Your task to perform on an android device: Clear all items from cart on ebay. Search for razer deathadder on ebay, select the first entry, and add it to the cart. Image 0: 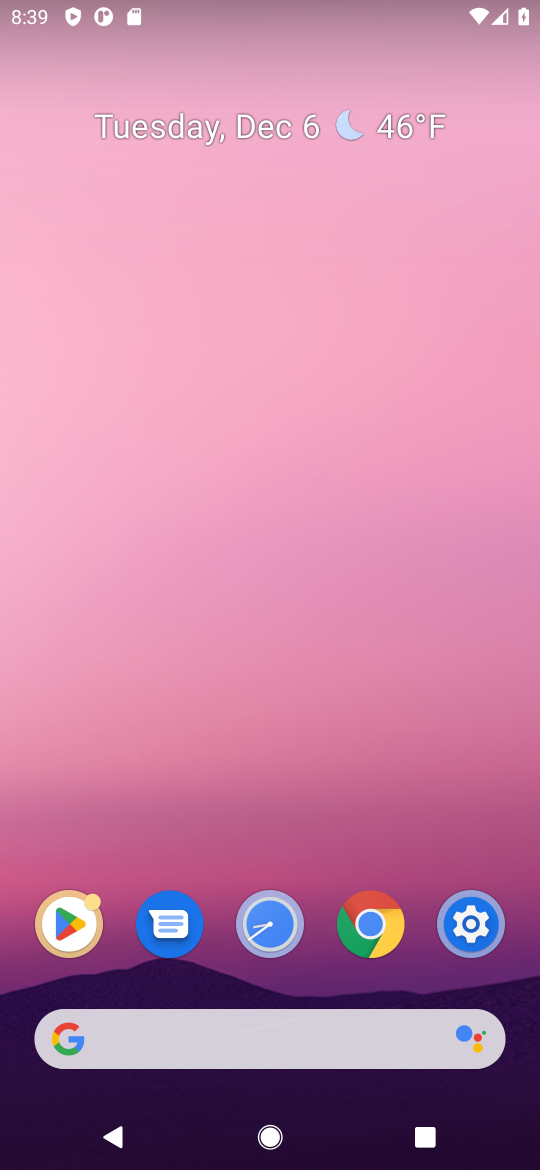
Step 0: click (207, 1040)
Your task to perform on an android device: Clear all items from cart on ebay. Search for razer deathadder on ebay, select the first entry, and add it to the cart. Image 1: 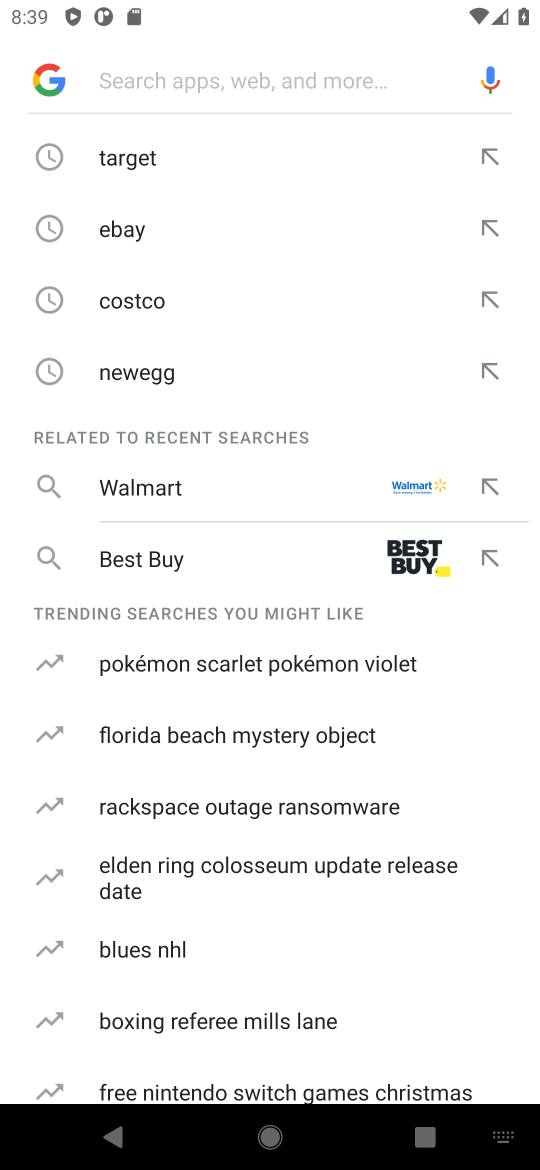
Step 1: click (219, 241)
Your task to perform on an android device: Clear all items from cart on ebay. Search for razer deathadder on ebay, select the first entry, and add it to the cart. Image 2: 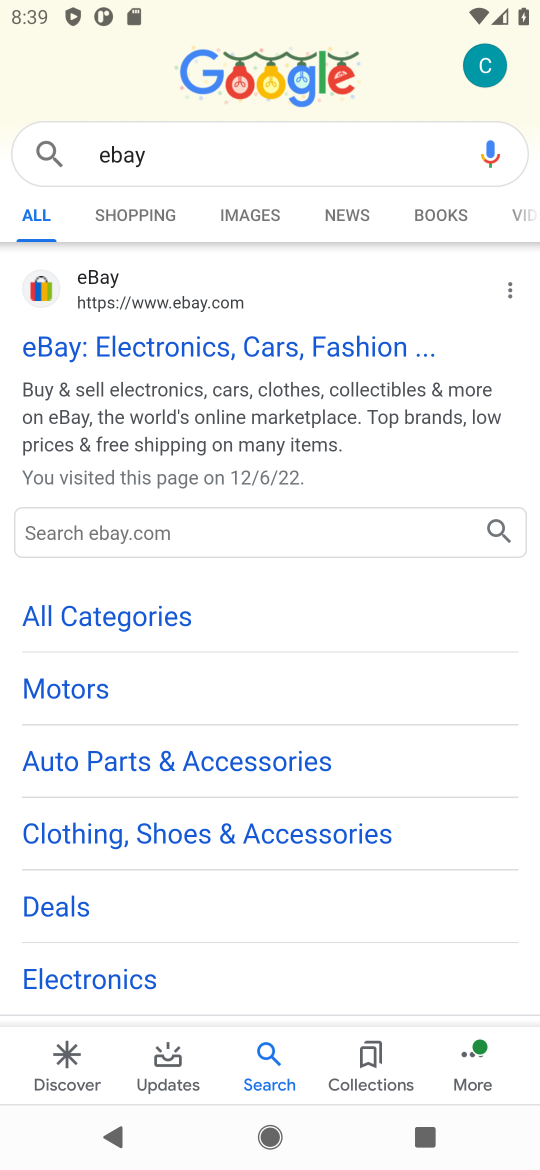
Step 2: click (96, 361)
Your task to perform on an android device: Clear all items from cart on ebay. Search for razer deathadder on ebay, select the first entry, and add it to the cart. Image 3: 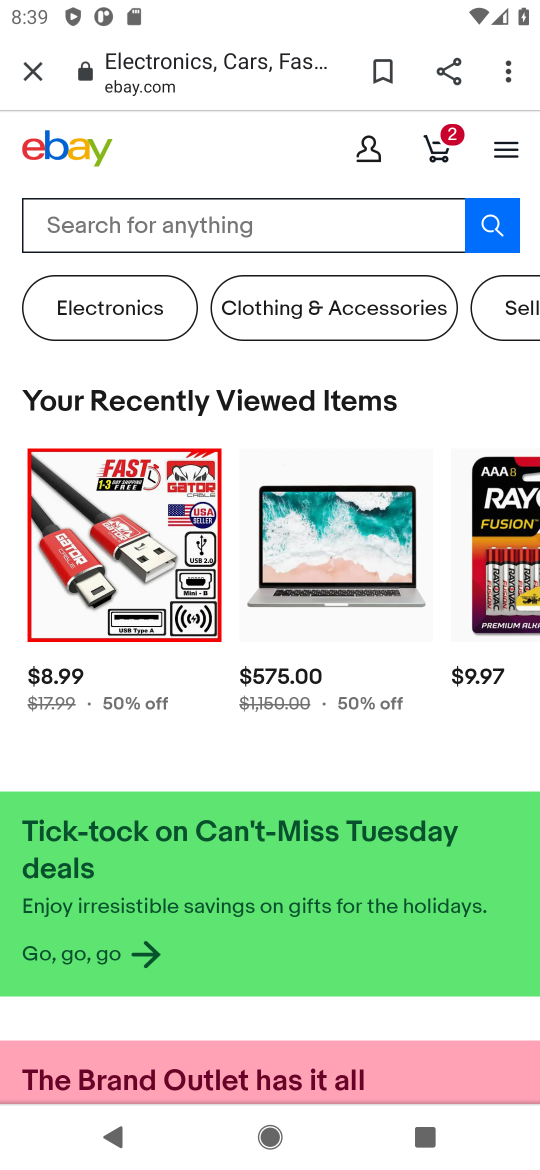
Step 3: click (142, 237)
Your task to perform on an android device: Clear all items from cart on ebay. Search for razer deathadder on ebay, select the first entry, and add it to the cart. Image 4: 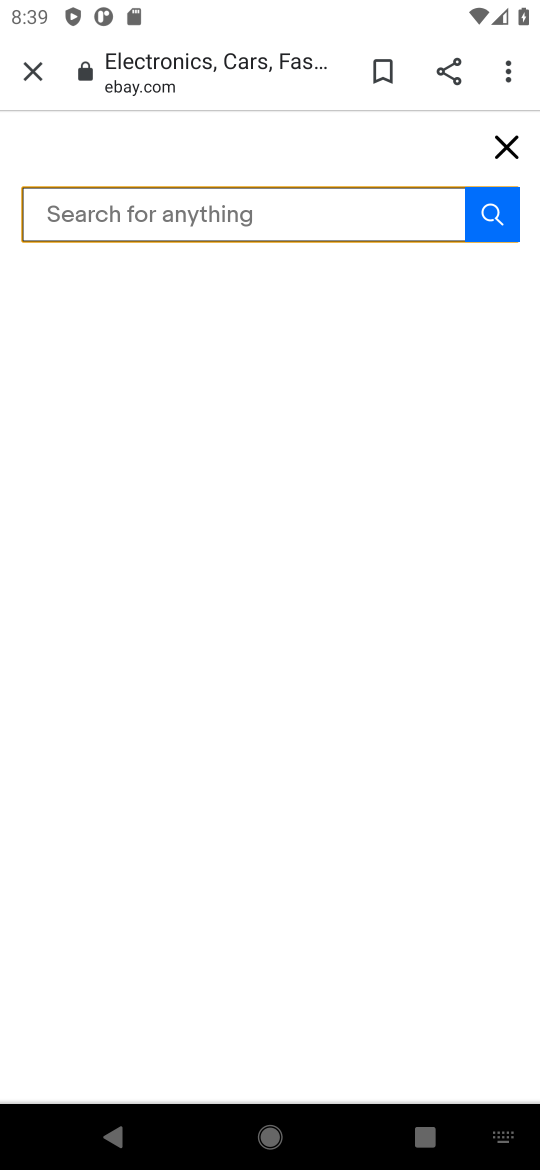
Step 4: type "razer deathadder"
Your task to perform on an android device: Clear all items from cart on ebay. Search for razer deathadder on ebay, select the first entry, and add it to the cart. Image 5: 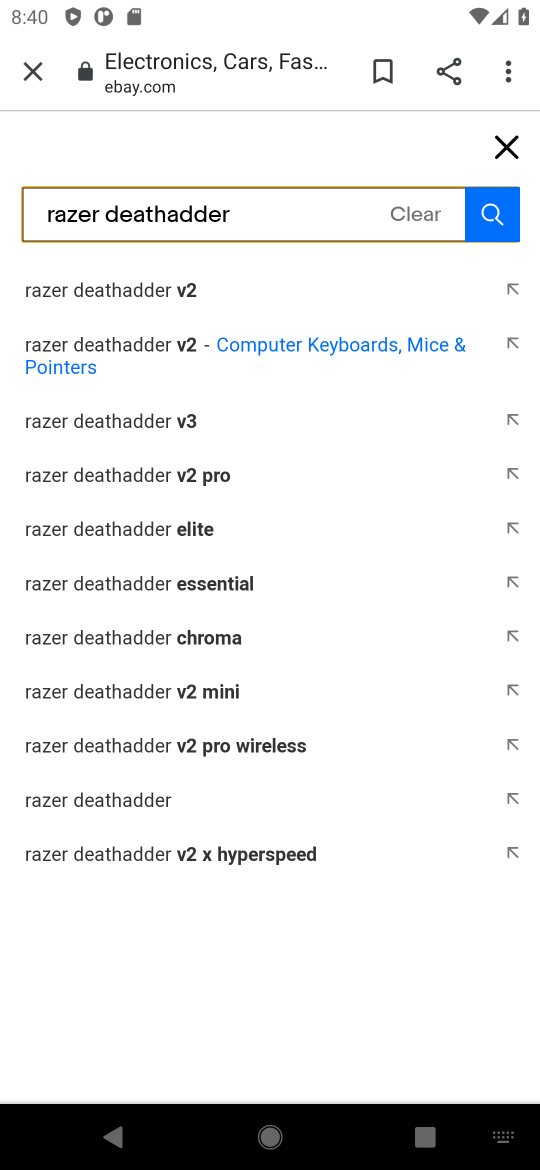
Step 5: click (110, 310)
Your task to perform on an android device: Clear all items from cart on ebay. Search for razer deathadder on ebay, select the first entry, and add it to the cart. Image 6: 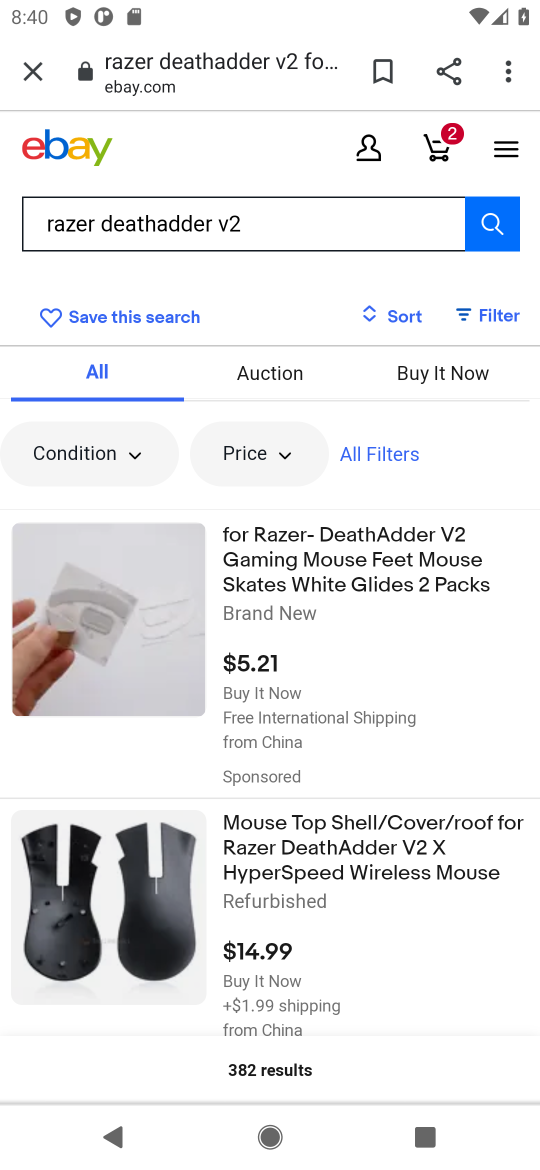
Step 6: click (325, 538)
Your task to perform on an android device: Clear all items from cart on ebay. Search for razer deathadder on ebay, select the first entry, and add it to the cart. Image 7: 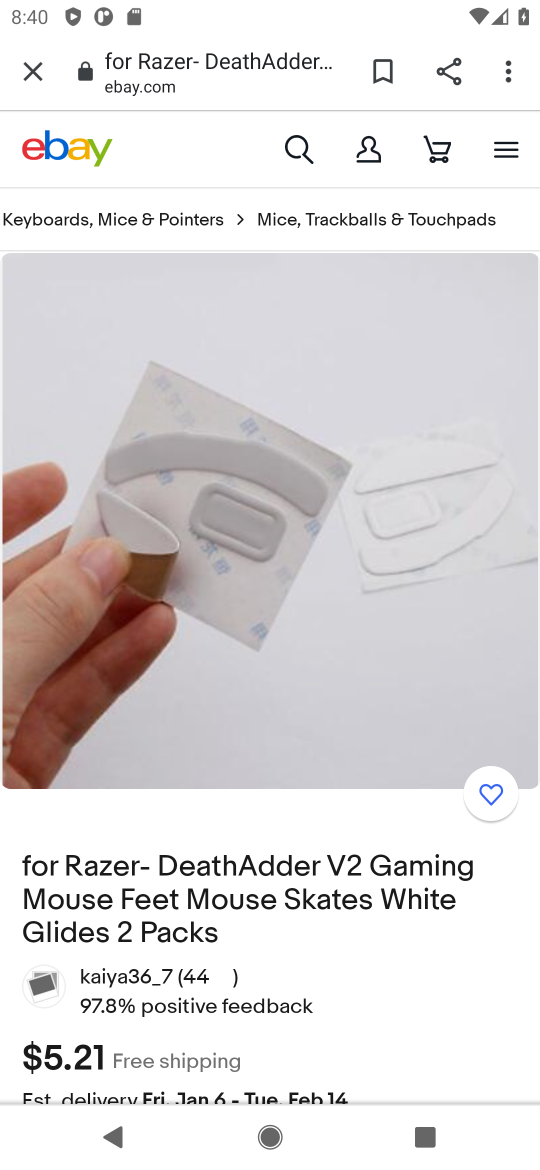
Step 7: drag from (282, 689) to (309, 271)
Your task to perform on an android device: Clear all items from cart on ebay. Search for razer deathadder on ebay, select the first entry, and add it to the cart. Image 8: 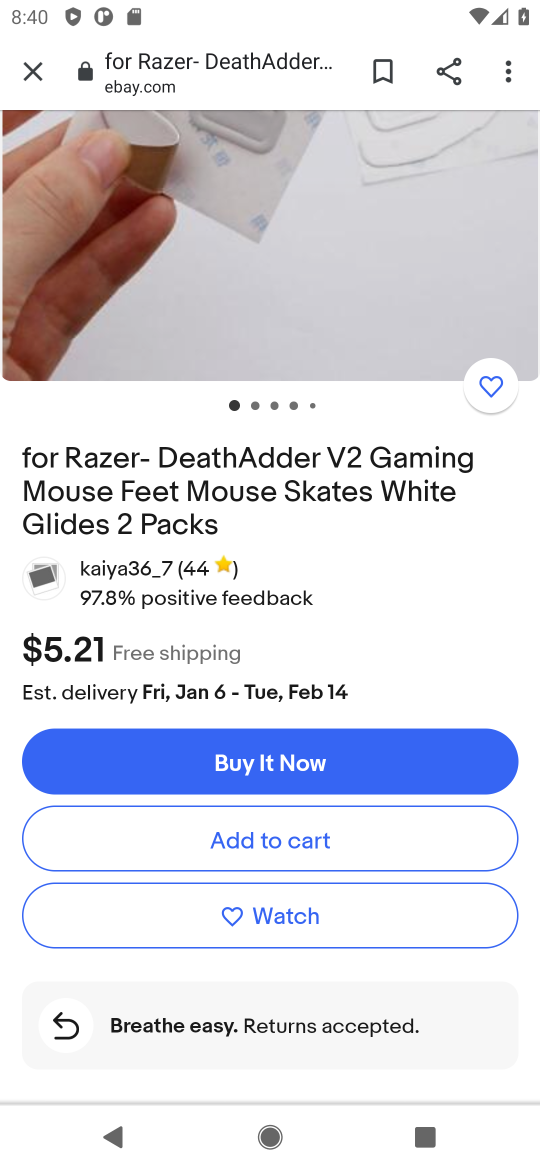
Step 8: click (366, 857)
Your task to perform on an android device: Clear all items from cart on ebay. Search for razer deathadder on ebay, select the first entry, and add it to the cart. Image 9: 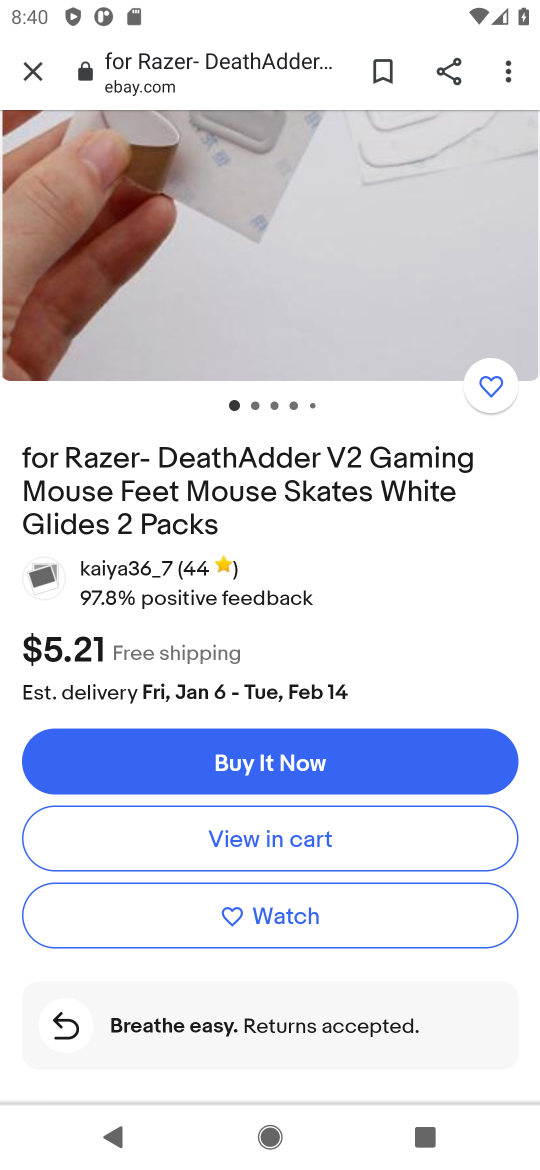
Step 9: task complete